Your task to perform on an android device: turn off picture-in-picture Image 0: 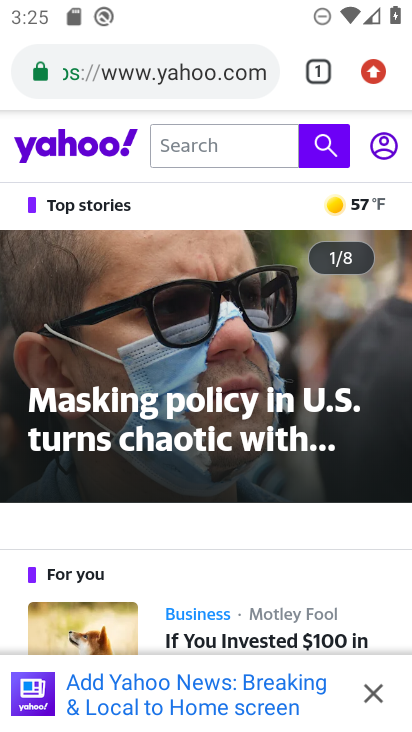
Step 0: press home button
Your task to perform on an android device: turn off picture-in-picture Image 1: 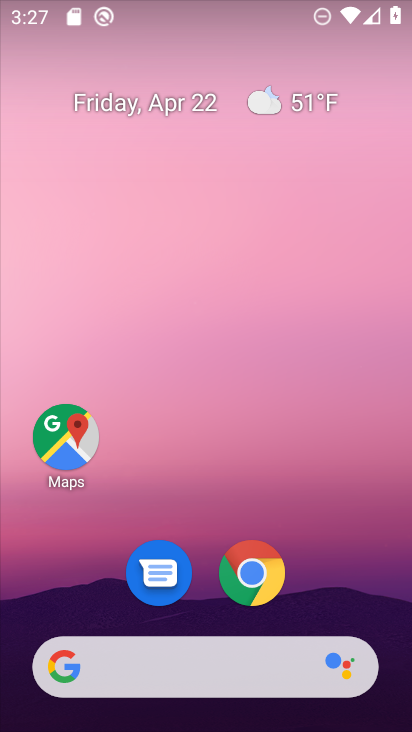
Step 1: click (249, 578)
Your task to perform on an android device: turn off picture-in-picture Image 2: 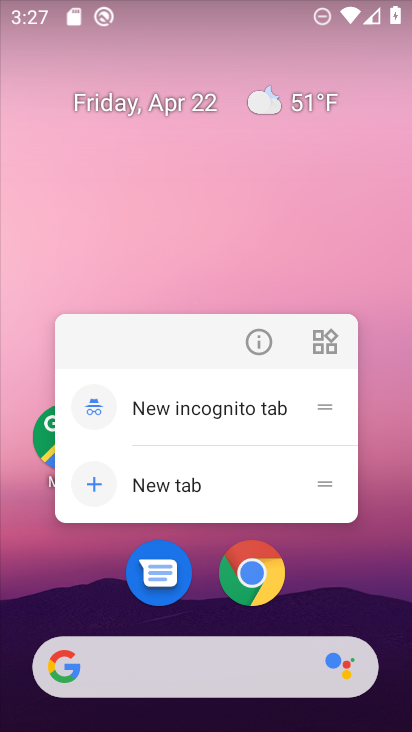
Step 2: click (253, 339)
Your task to perform on an android device: turn off picture-in-picture Image 3: 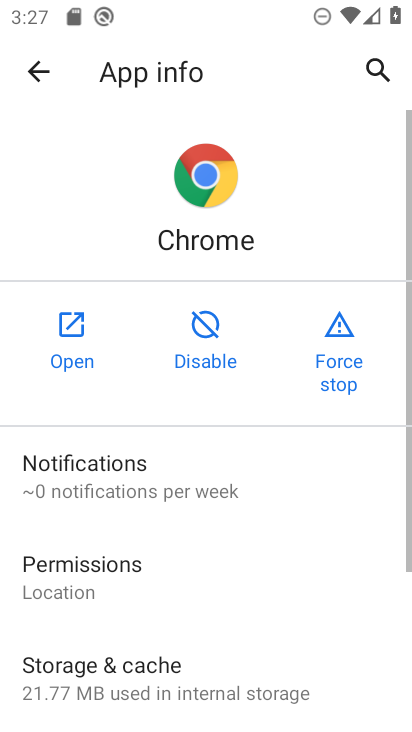
Step 3: drag from (199, 607) to (217, 141)
Your task to perform on an android device: turn off picture-in-picture Image 4: 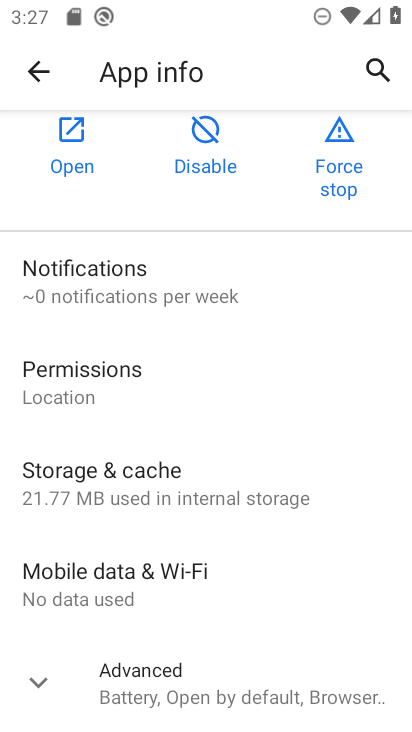
Step 4: click (157, 663)
Your task to perform on an android device: turn off picture-in-picture Image 5: 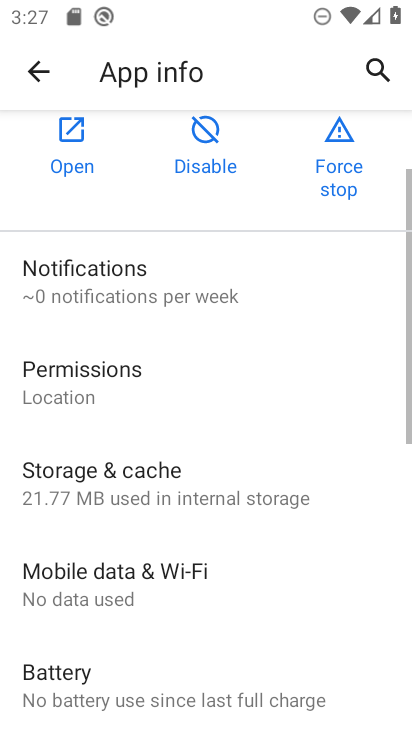
Step 5: drag from (303, 621) to (349, 14)
Your task to perform on an android device: turn off picture-in-picture Image 6: 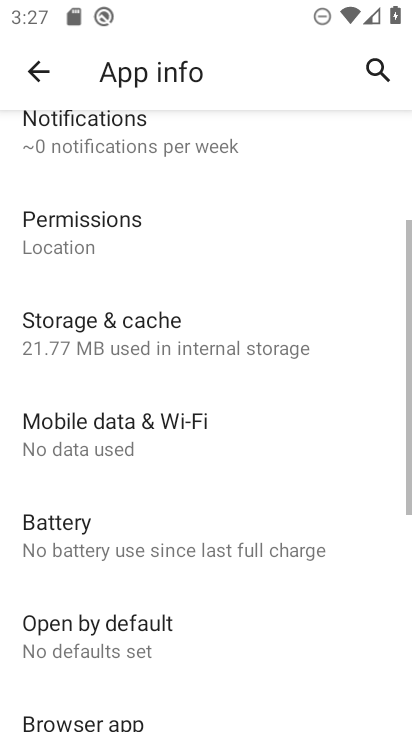
Step 6: drag from (224, 657) to (307, 134)
Your task to perform on an android device: turn off picture-in-picture Image 7: 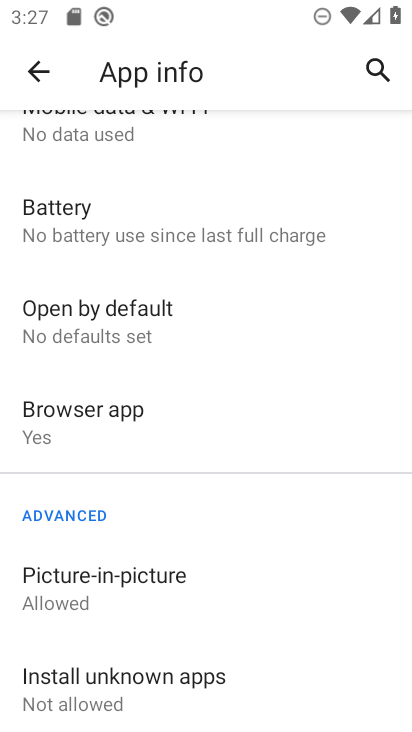
Step 7: click (161, 580)
Your task to perform on an android device: turn off picture-in-picture Image 8: 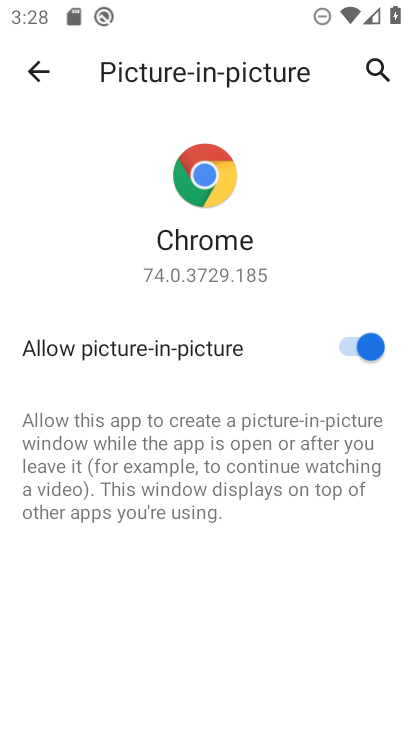
Step 8: click (336, 348)
Your task to perform on an android device: turn off picture-in-picture Image 9: 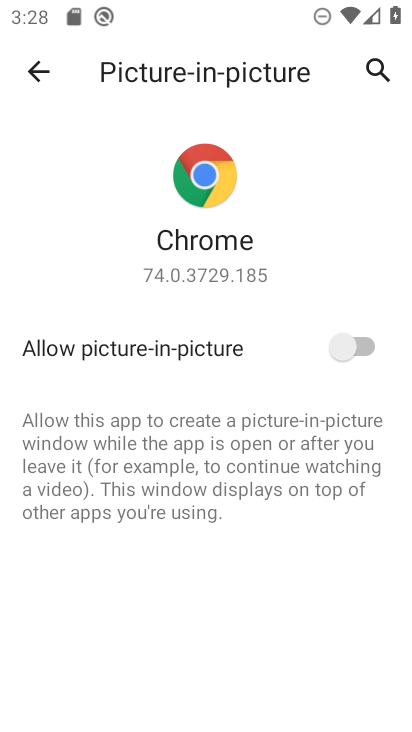
Step 9: task complete